Your task to perform on an android device: turn off picture-in-picture Image 0: 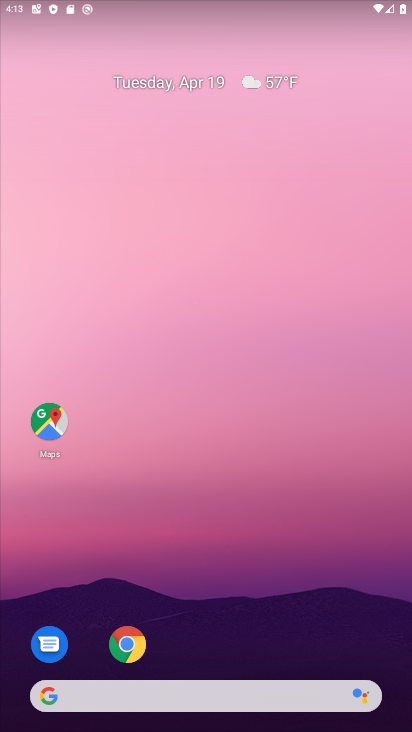
Step 0: drag from (213, 503) to (291, 101)
Your task to perform on an android device: turn off picture-in-picture Image 1: 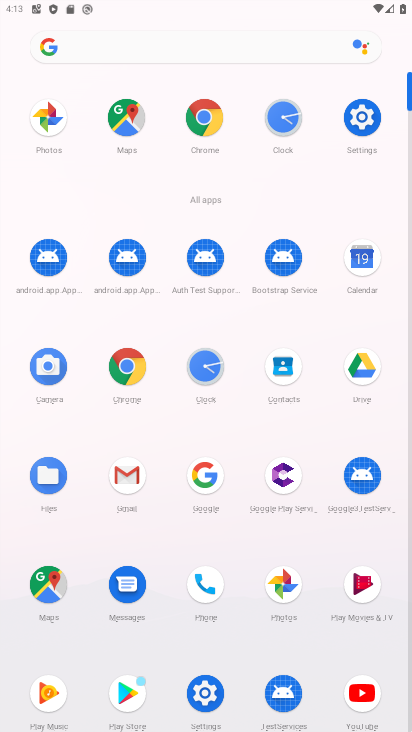
Step 1: click (211, 118)
Your task to perform on an android device: turn off picture-in-picture Image 2: 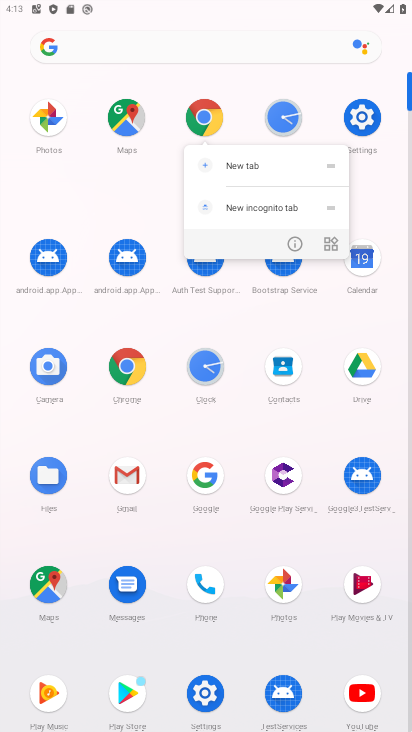
Step 2: click (290, 241)
Your task to perform on an android device: turn off picture-in-picture Image 3: 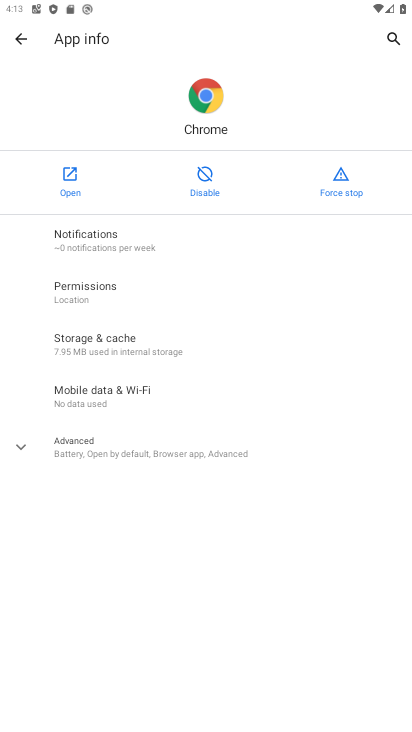
Step 3: click (105, 440)
Your task to perform on an android device: turn off picture-in-picture Image 4: 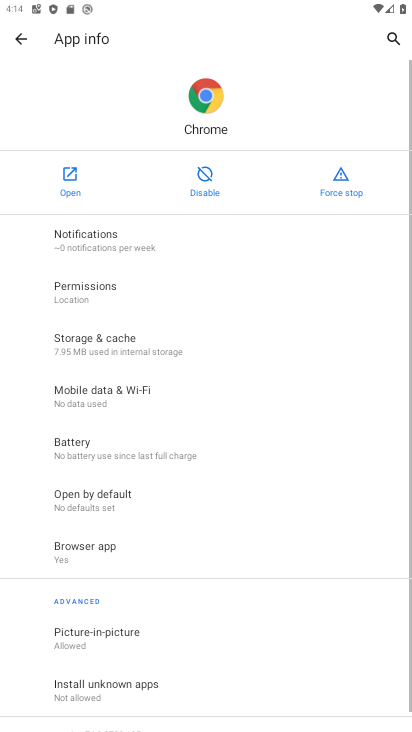
Step 4: drag from (136, 576) to (206, 247)
Your task to perform on an android device: turn off picture-in-picture Image 5: 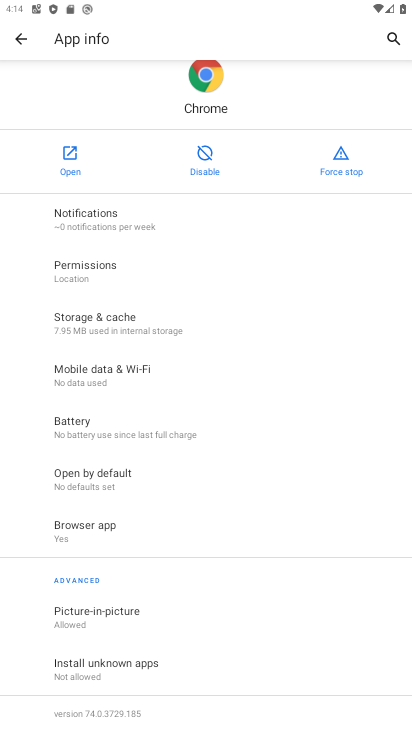
Step 5: click (73, 612)
Your task to perform on an android device: turn off picture-in-picture Image 6: 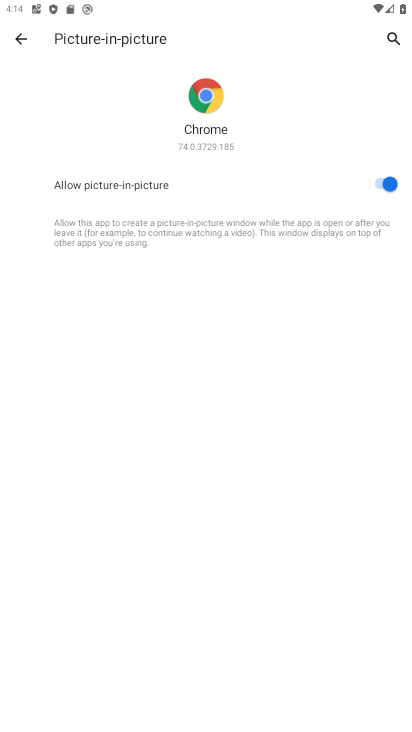
Step 6: click (379, 183)
Your task to perform on an android device: turn off picture-in-picture Image 7: 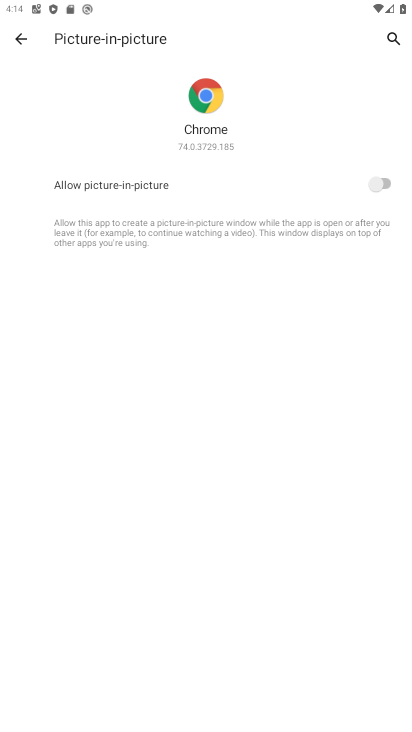
Step 7: task complete